Your task to perform on an android device: Open calendar and show me the first week of next month Image 0: 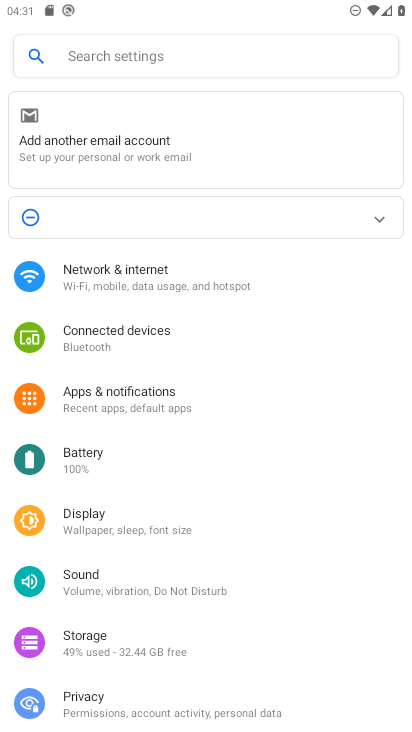
Step 0: press home button
Your task to perform on an android device: Open calendar and show me the first week of next month Image 1: 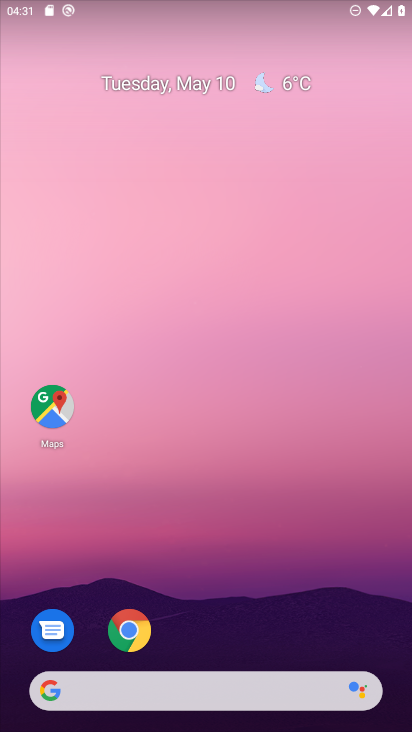
Step 1: click (151, 87)
Your task to perform on an android device: Open calendar and show me the first week of next month Image 2: 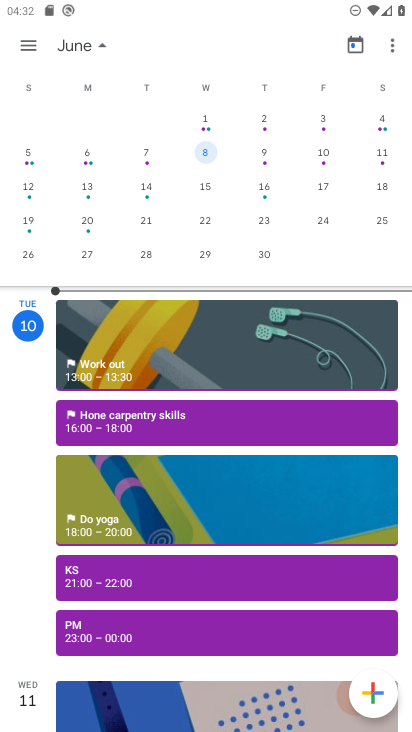
Step 2: click (341, 118)
Your task to perform on an android device: Open calendar and show me the first week of next month Image 3: 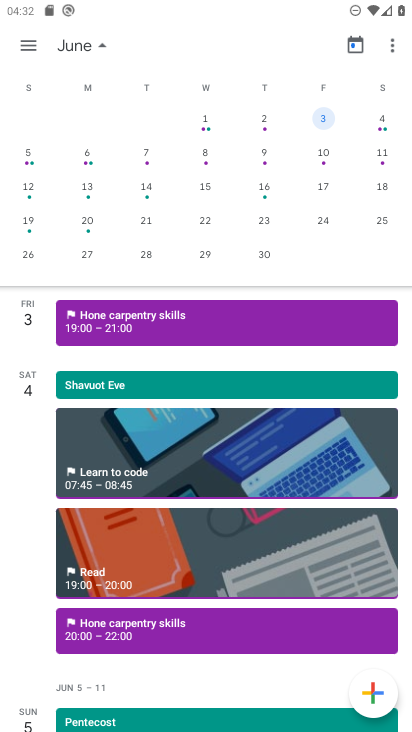
Step 3: task complete